Your task to perform on an android device: open a bookmark in the chrome app Image 0: 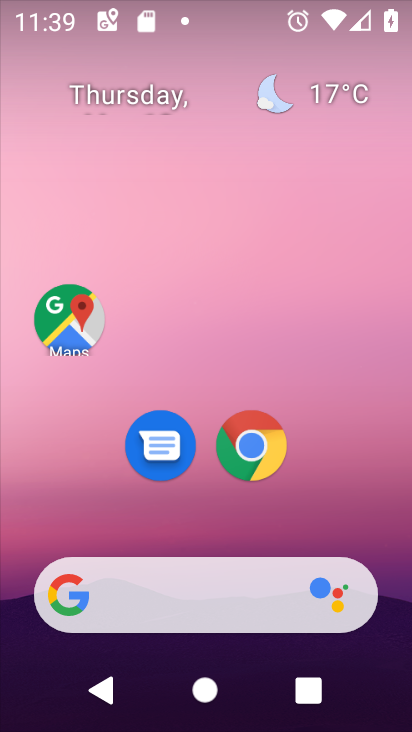
Step 0: drag from (207, 522) to (245, 172)
Your task to perform on an android device: open a bookmark in the chrome app Image 1: 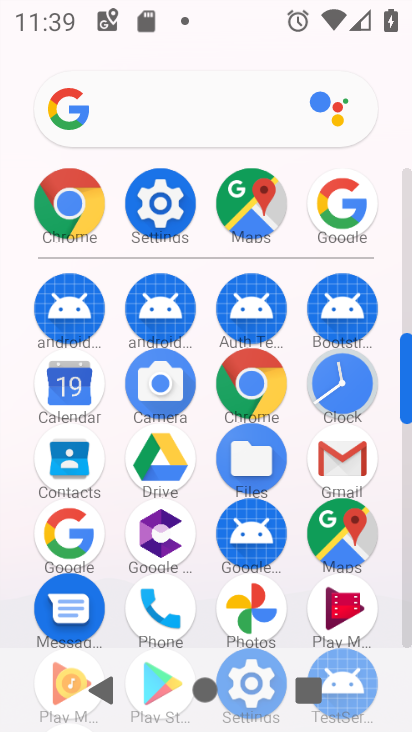
Step 1: click (246, 399)
Your task to perform on an android device: open a bookmark in the chrome app Image 2: 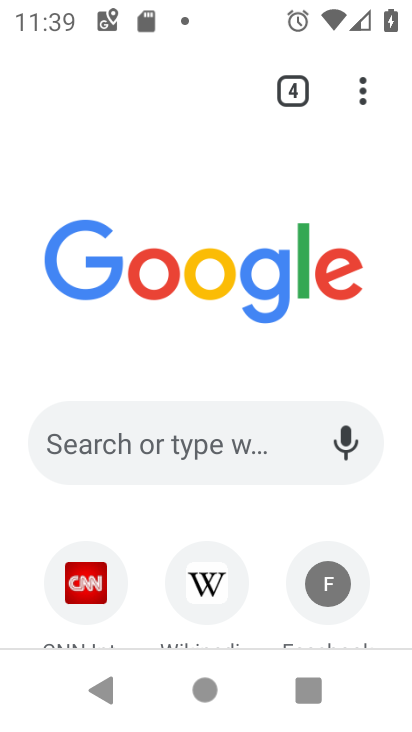
Step 2: click (360, 93)
Your task to perform on an android device: open a bookmark in the chrome app Image 3: 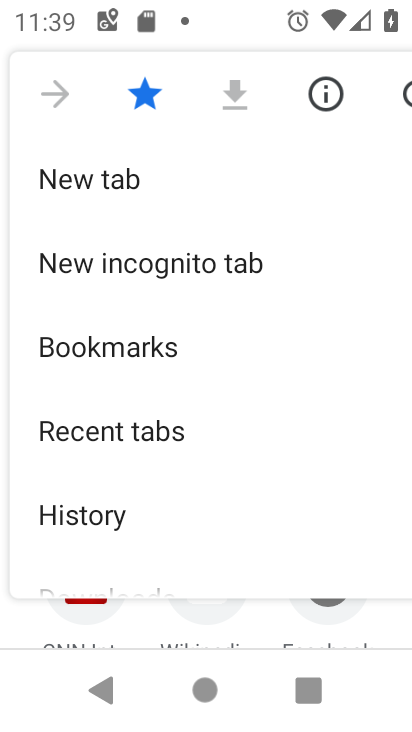
Step 3: click (208, 337)
Your task to perform on an android device: open a bookmark in the chrome app Image 4: 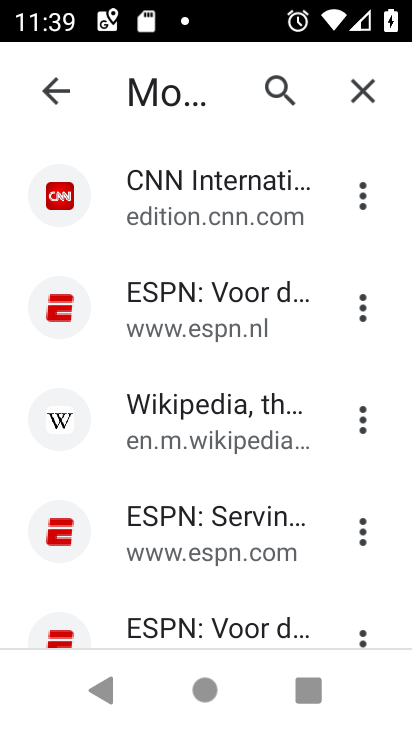
Step 4: click (196, 308)
Your task to perform on an android device: open a bookmark in the chrome app Image 5: 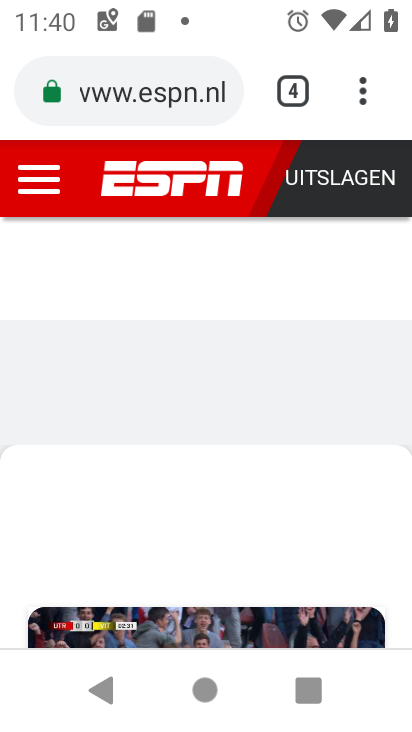
Step 5: task complete